Your task to perform on an android device: Open eBay Image 0: 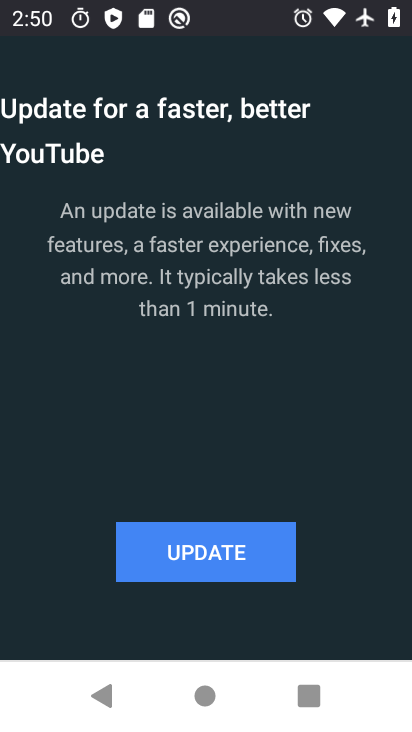
Step 0: press home button
Your task to perform on an android device: Open eBay Image 1: 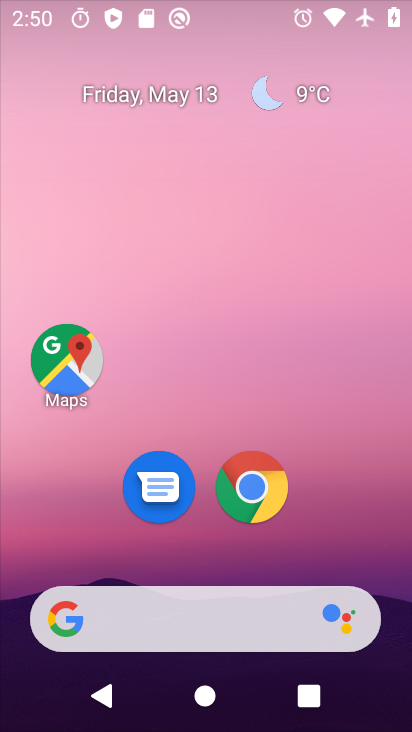
Step 1: drag from (207, 535) to (244, 67)
Your task to perform on an android device: Open eBay Image 2: 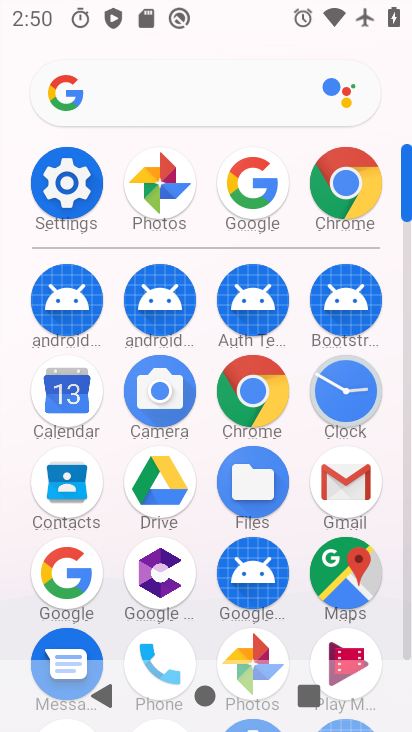
Step 2: click (252, 184)
Your task to perform on an android device: Open eBay Image 3: 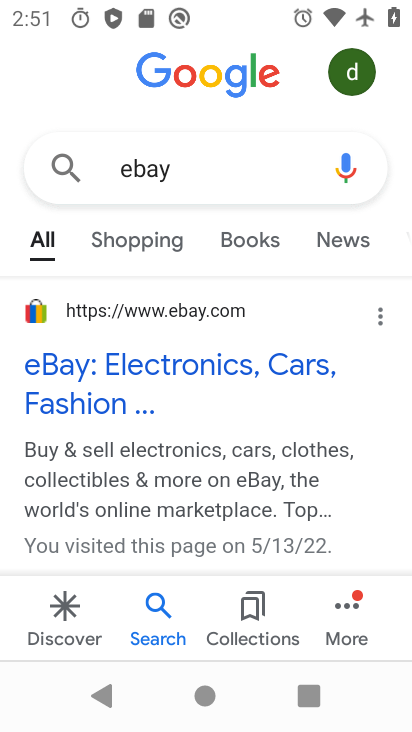
Step 3: task complete